Your task to perform on an android device: Go to privacy settings Image 0: 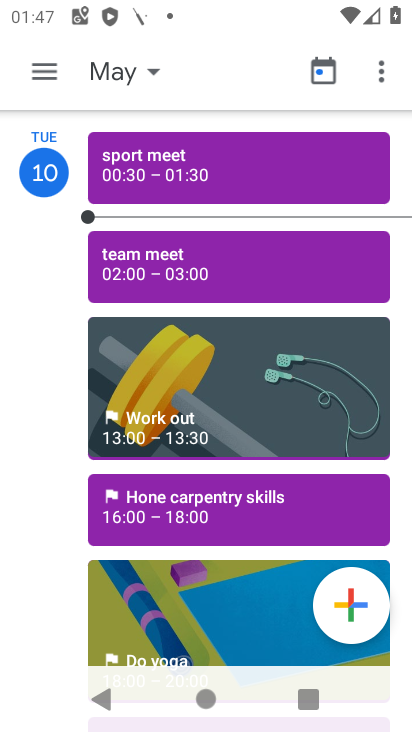
Step 0: press home button
Your task to perform on an android device: Go to privacy settings Image 1: 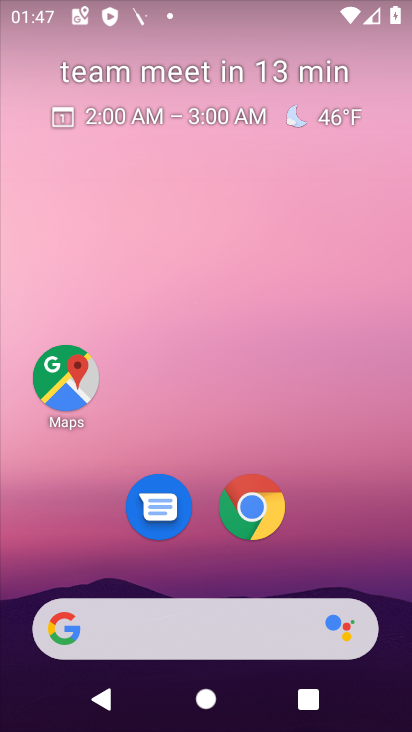
Step 1: drag from (260, 660) to (265, 278)
Your task to perform on an android device: Go to privacy settings Image 2: 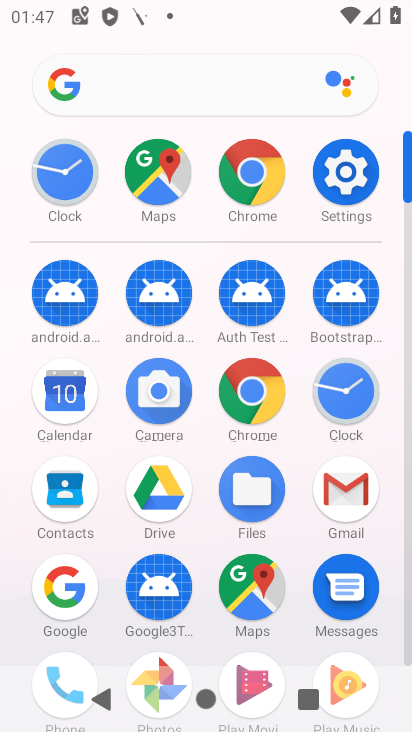
Step 2: click (350, 174)
Your task to perform on an android device: Go to privacy settings Image 3: 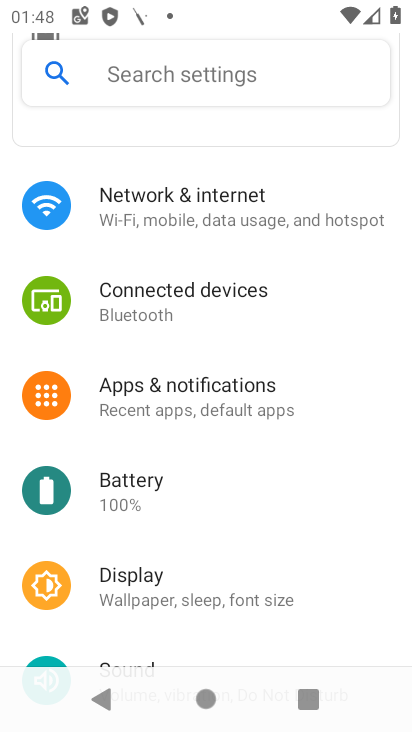
Step 3: click (159, 86)
Your task to perform on an android device: Go to privacy settings Image 4: 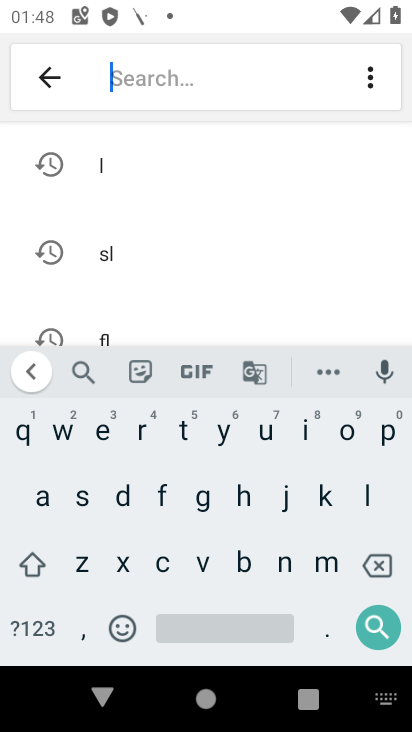
Step 4: click (392, 432)
Your task to perform on an android device: Go to privacy settings Image 5: 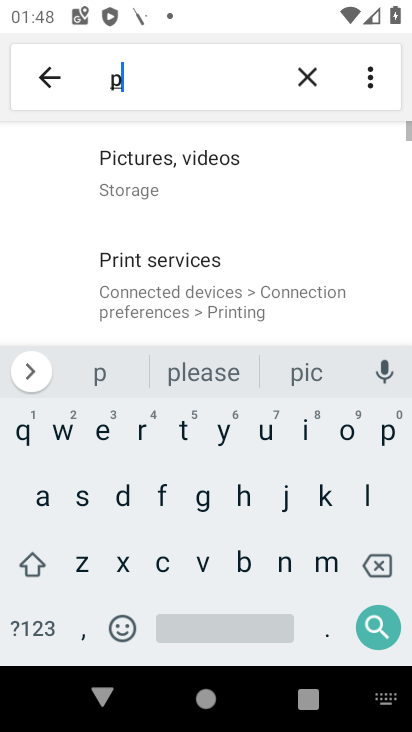
Step 5: click (140, 445)
Your task to perform on an android device: Go to privacy settings Image 6: 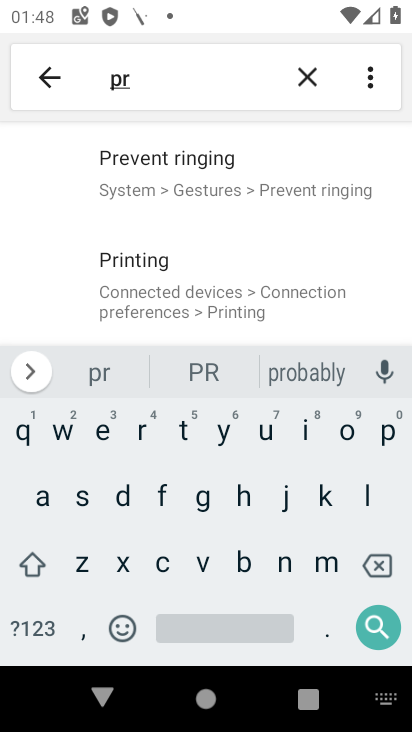
Step 6: click (307, 427)
Your task to perform on an android device: Go to privacy settings Image 7: 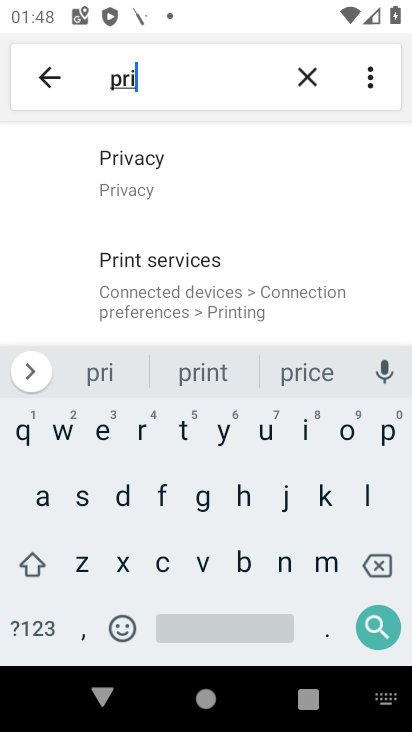
Step 7: click (125, 179)
Your task to perform on an android device: Go to privacy settings Image 8: 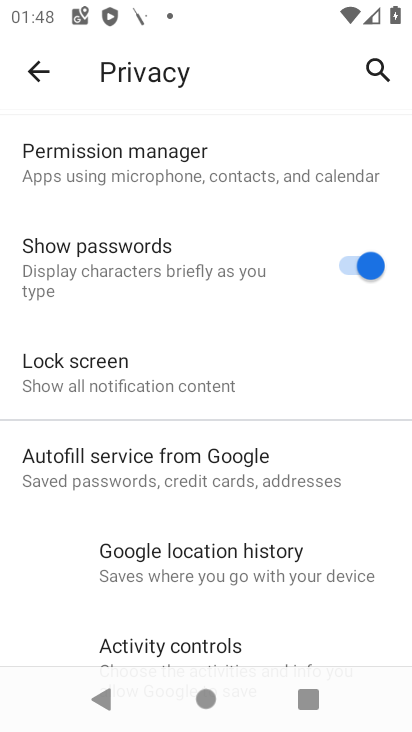
Step 8: task complete